Your task to perform on an android device: add a label to a message in the gmail app Image 0: 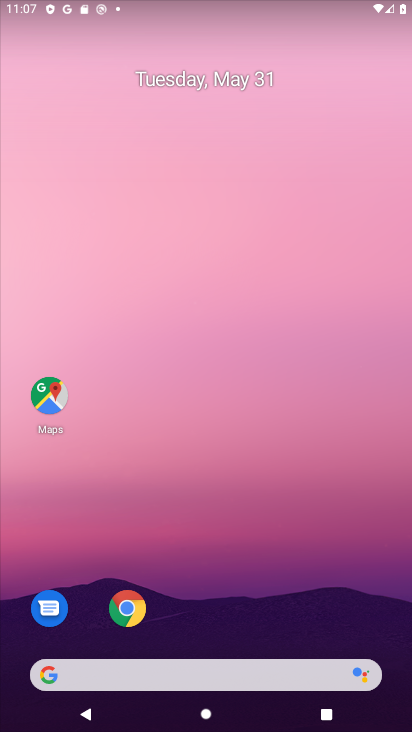
Step 0: drag from (346, 599) to (223, 49)
Your task to perform on an android device: add a label to a message in the gmail app Image 1: 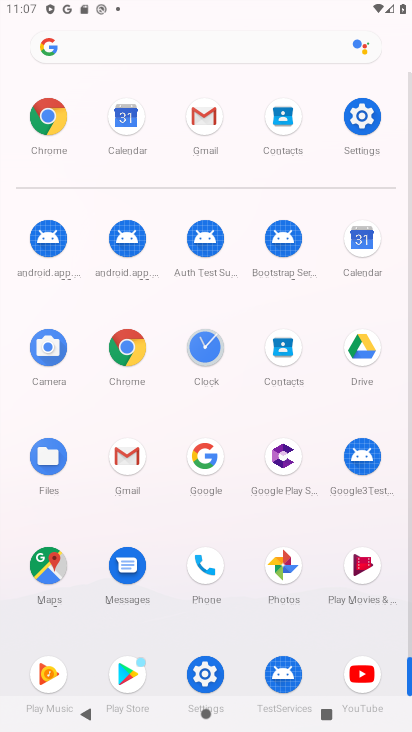
Step 1: click (212, 106)
Your task to perform on an android device: add a label to a message in the gmail app Image 2: 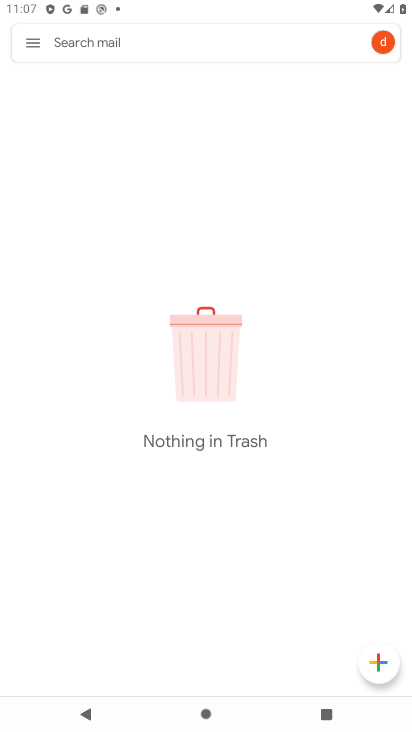
Step 2: task complete